Your task to perform on an android device: turn off notifications in google photos Image 0: 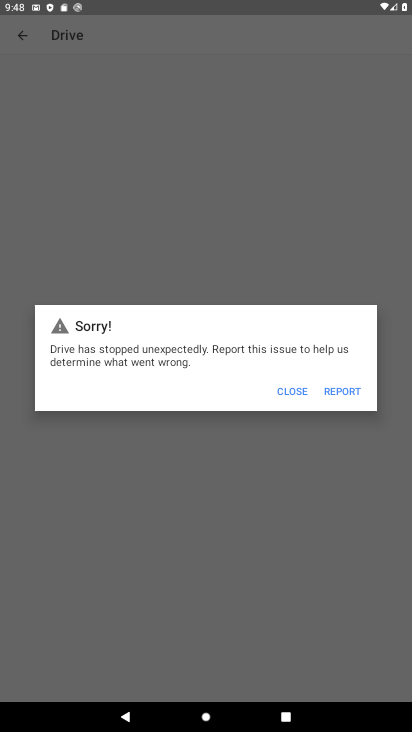
Step 0: press home button
Your task to perform on an android device: turn off notifications in google photos Image 1: 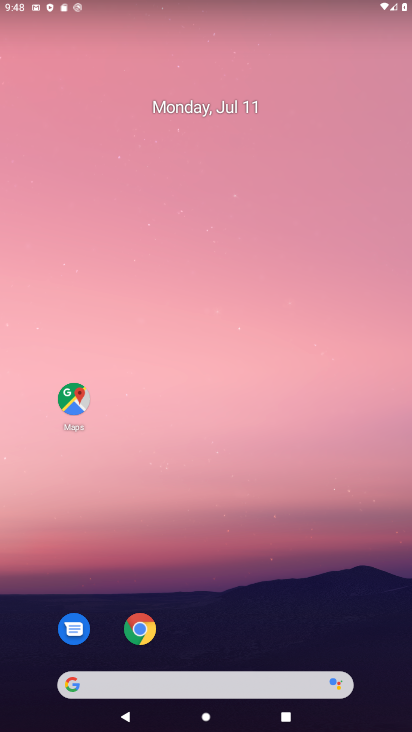
Step 1: drag from (203, 539) to (203, 128)
Your task to perform on an android device: turn off notifications in google photos Image 2: 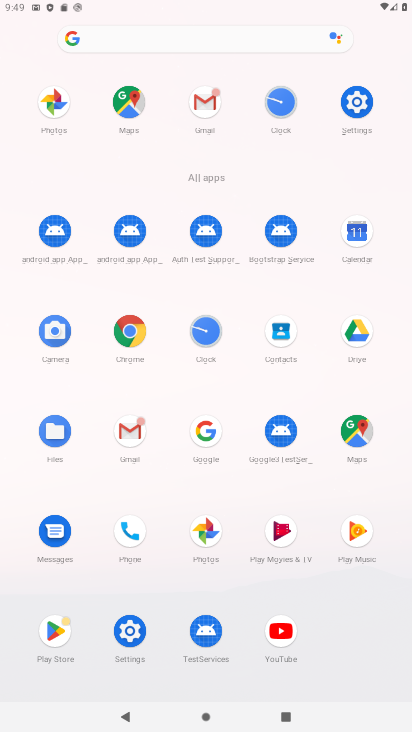
Step 2: click (66, 102)
Your task to perform on an android device: turn off notifications in google photos Image 3: 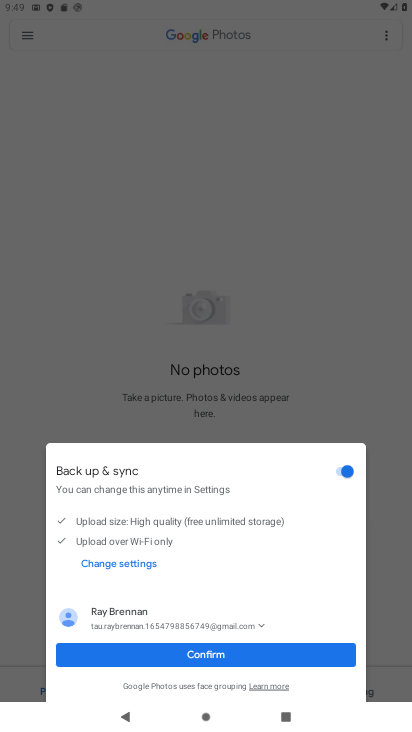
Step 3: click (253, 642)
Your task to perform on an android device: turn off notifications in google photos Image 4: 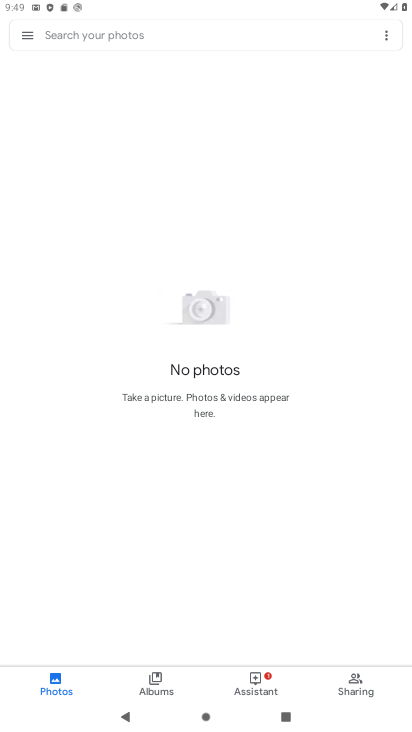
Step 4: click (23, 46)
Your task to perform on an android device: turn off notifications in google photos Image 5: 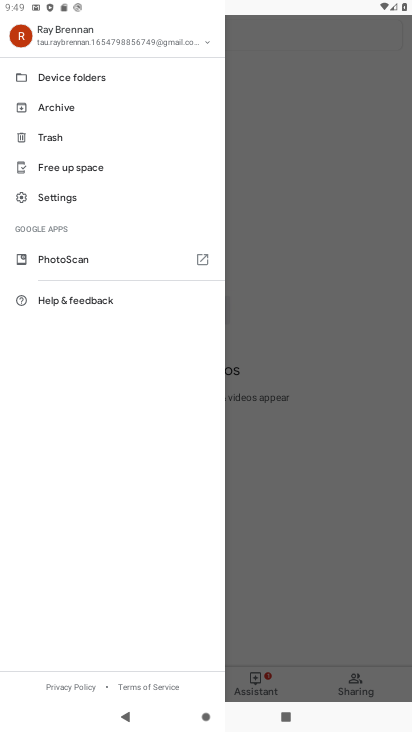
Step 5: click (74, 189)
Your task to perform on an android device: turn off notifications in google photos Image 6: 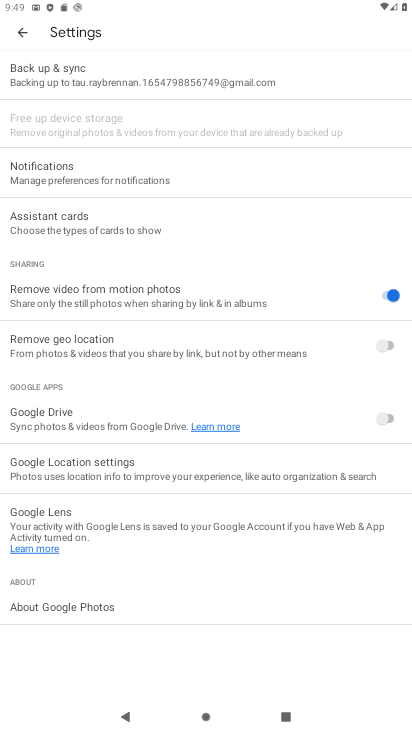
Step 6: click (95, 186)
Your task to perform on an android device: turn off notifications in google photos Image 7: 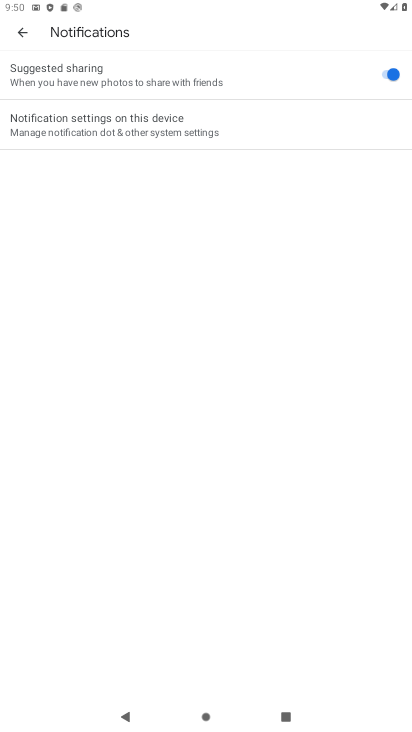
Step 7: click (207, 127)
Your task to perform on an android device: turn off notifications in google photos Image 8: 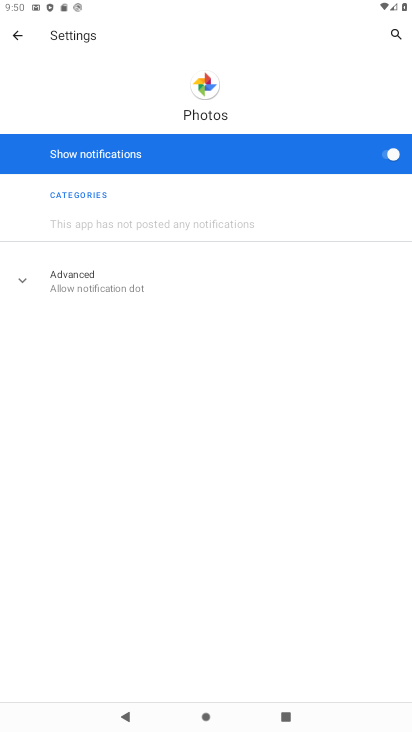
Step 8: click (373, 161)
Your task to perform on an android device: turn off notifications in google photos Image 9: 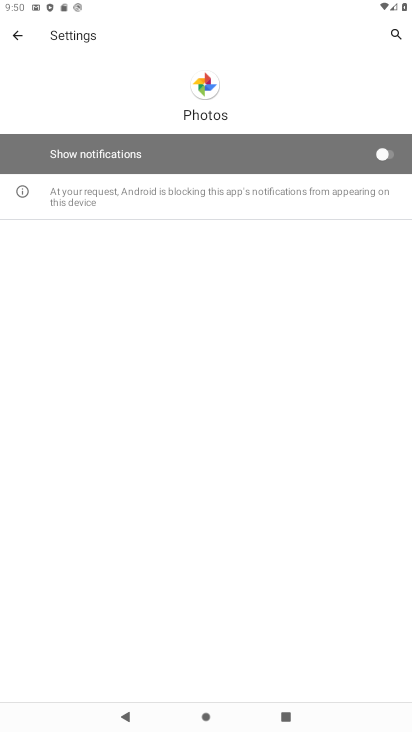
Step 9: task complete